Your task to perform on an android device: Open calendar and show me the second week of next month Image 0: 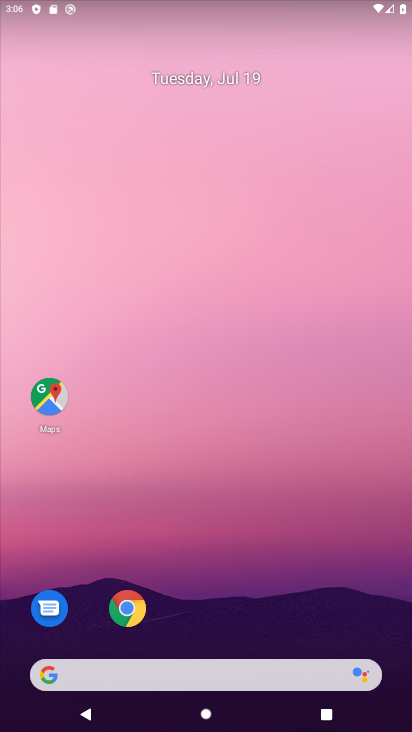
Step 0: drag from (272, 550) to (310, 21)
Your task to perform on an android device: Open calendar and show me the second week of next month Image 1: 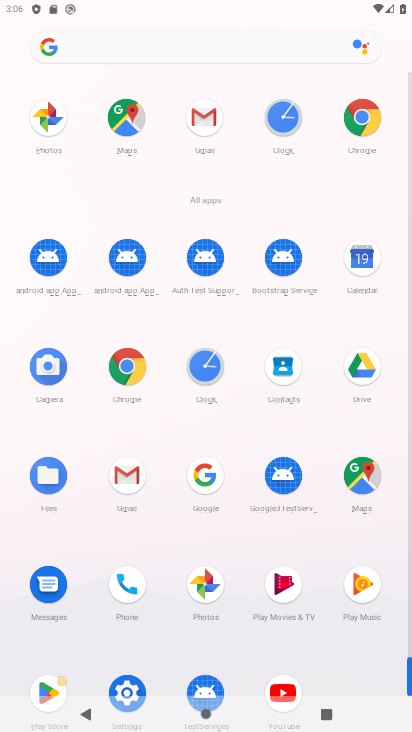
Step 1: click (359, 248)
Your task to perform on an android device: Open calendar and show me the second week of next month Image 2: 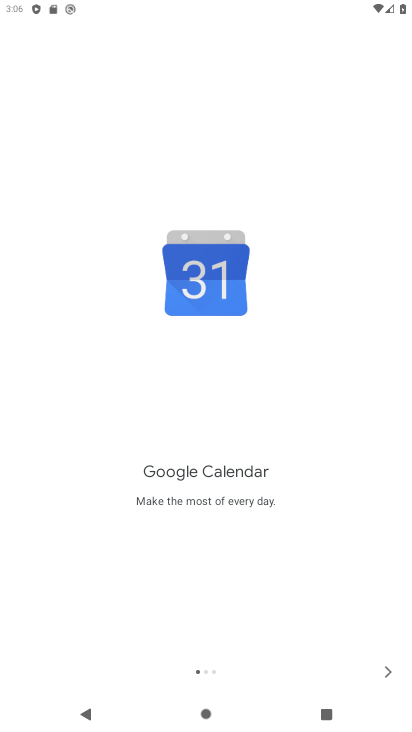
Step 2: click (383, 668)
Your task to perform on an android device: Open calendar and show me the second week of next month Image 3: 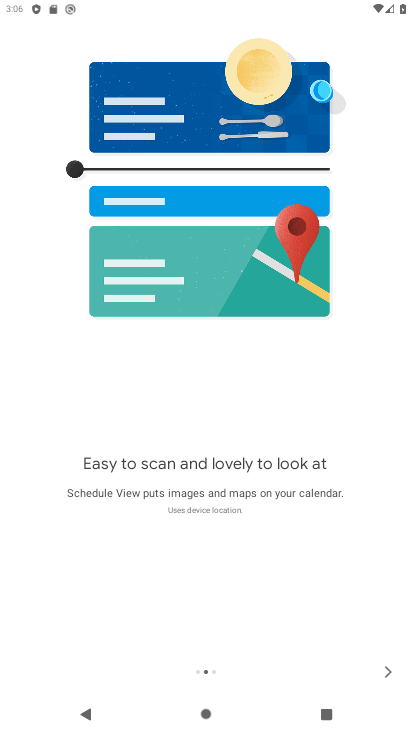
Step 3: click (383, 668)
Your task to perform on an android device: Open calendar and show me the second week of next month Image 4: 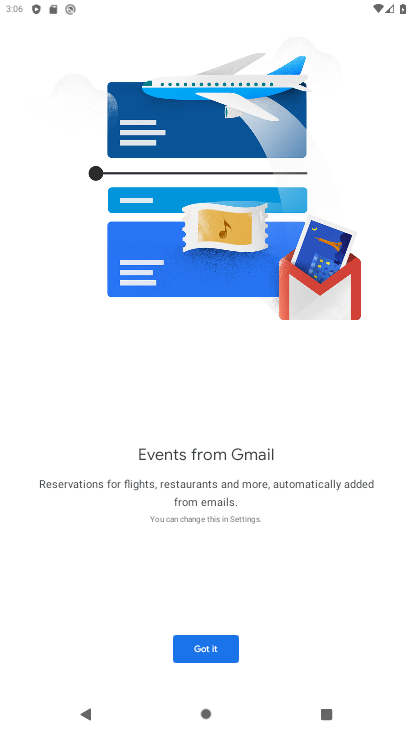
Step 4: click (220, 644)
Your task to perform on an android device: Open calendar and show me the second week of next month Image 5: 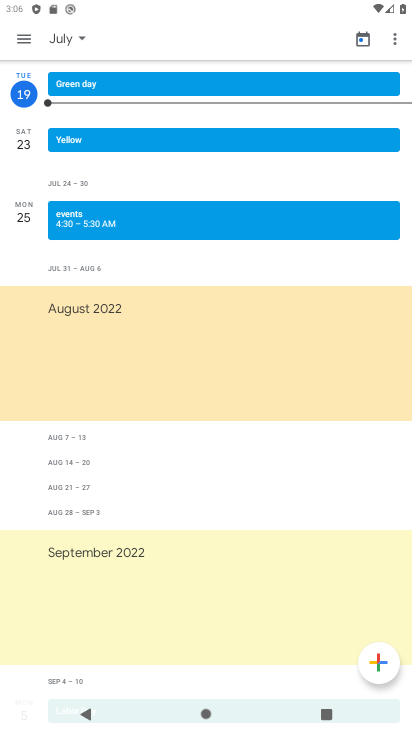
Step 5: task complete